Your task to perform on an android device: delete browsing data in the chrome app Image 0: 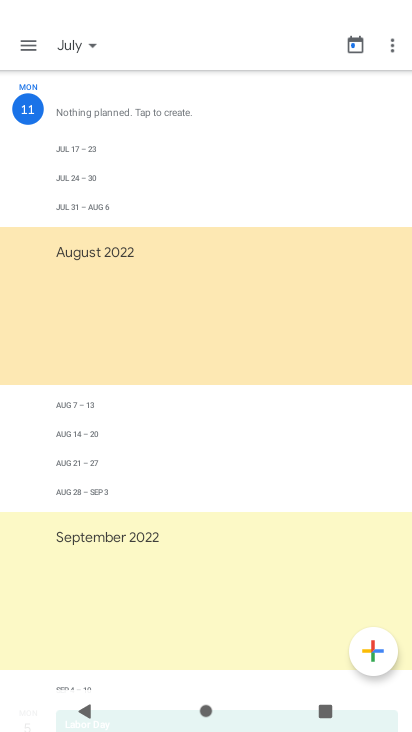
Step 0: press home button
Your task to perform on an android device: delete browsing data in the chrome app Image 1: 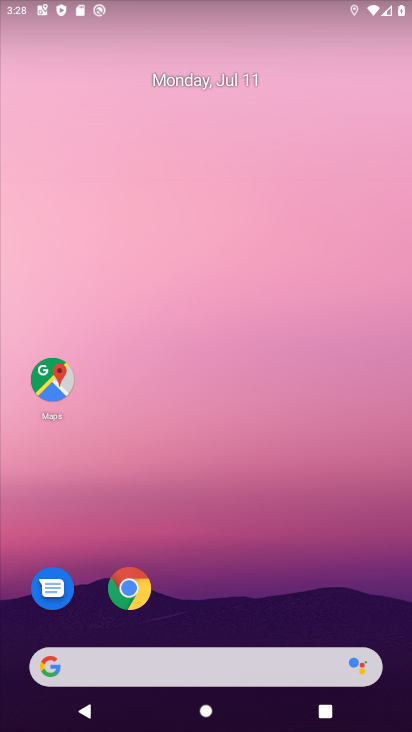
Step 1: click (128, 587)
Your task to perform on an android device: delete browsing data in the chrome app Image 2: 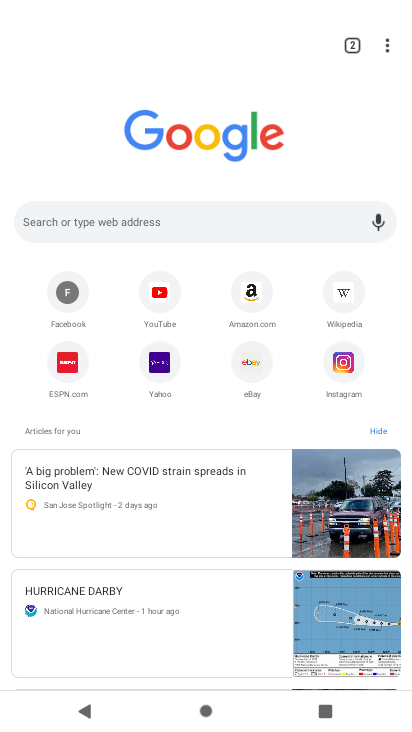
Step 2: click (385, 47)
Your task to perform on an android device: delete browsing data in the chrome app Image 3: 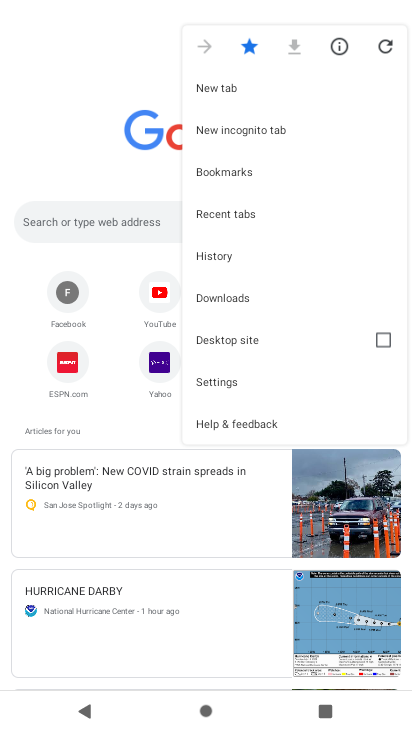
Step 3: click (215, 249)
Your task to perform on an android device: delete browsing data in the chrome app Image 4: 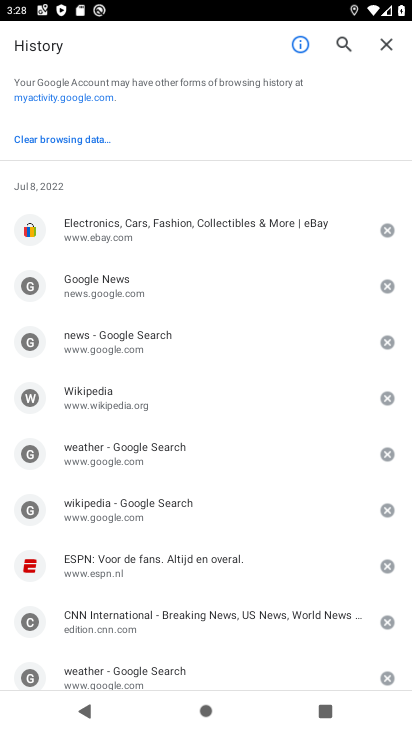
Step 4: click (65, 143)
Your task to perform on an android device: delete browsing data in the chrome app Image 5: 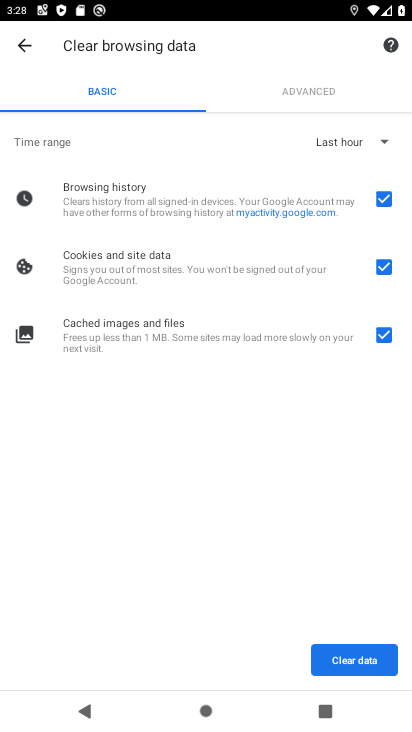
Step 5: click (359, 663)
Your task to perform on an android device: delete browsing data in the chrome app Image 6: 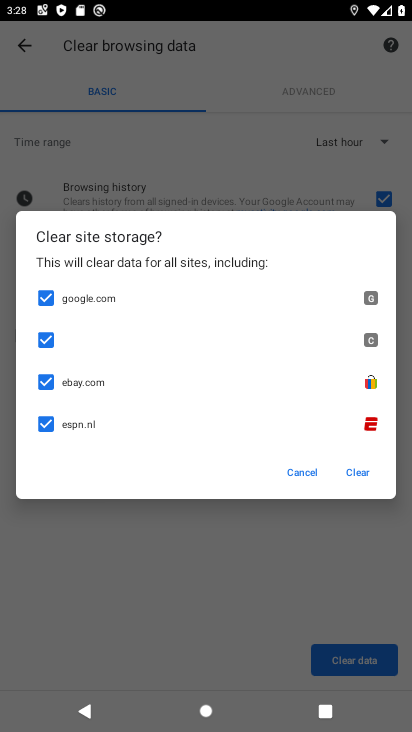
Step 6: click (350, 472)
Your task to perform on an android device: delete browsing data in the chrome app Image 7: 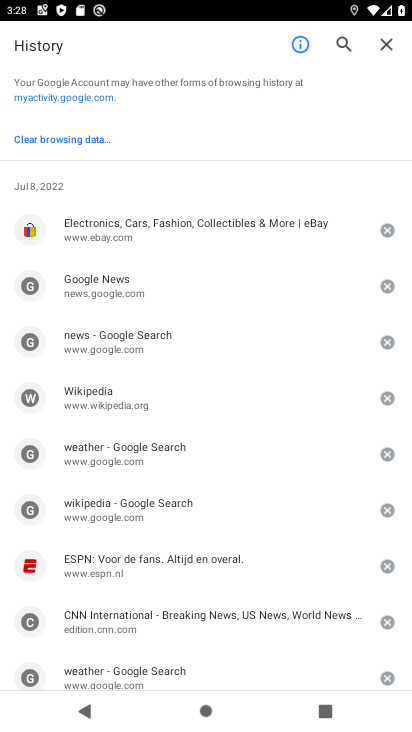
Step 7: click (64, 135)
Your task to perform on an android device: delete browsing data in the chrome app Image 8: 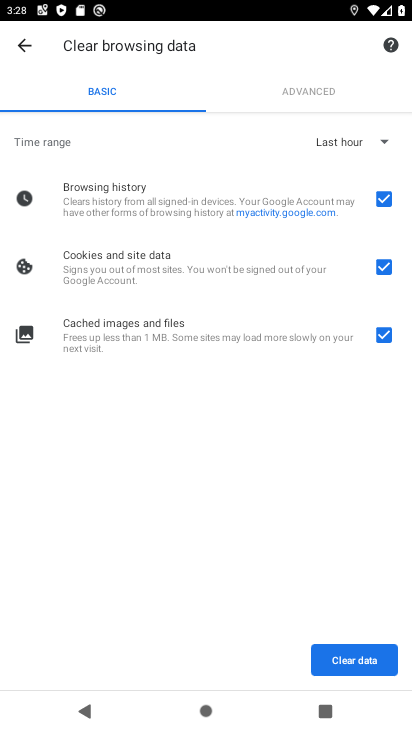
Step 8: click (390, 132)
Your task to perform on an android device: delete browsing data in the chrome app Image 9: 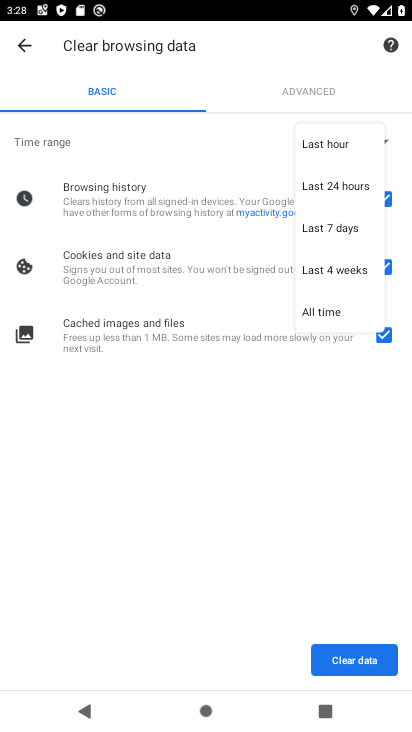
Step 9: click (329, 308)
Your task to perform on an android device: delete browsing data in the chrome app Image 10: 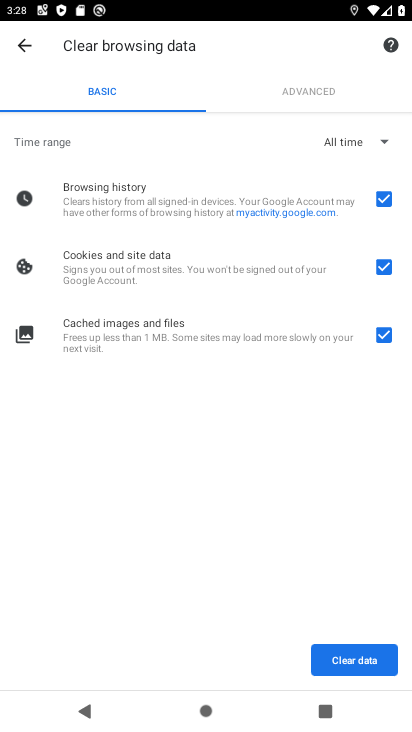
Step 10: click (344, 663)
Your task to perform on an android device: delete browsing data in the chrome app Image 11: 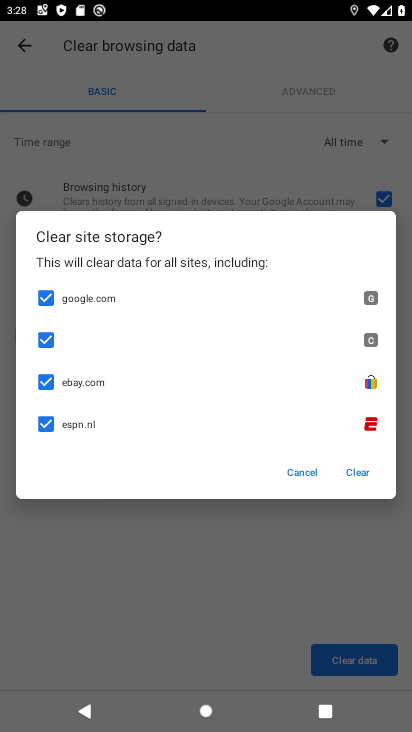
Step 11: click (356, 474)
Your task to perform on an android device: delete browsing data in the chrome app Image 12: 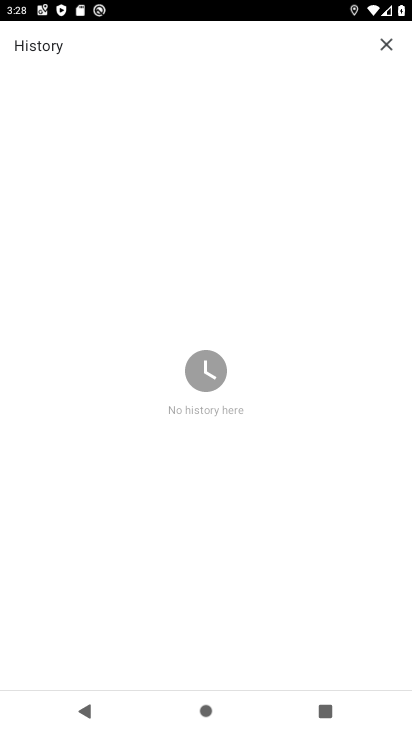
Step 12: task complete